Your task to perform on an android device: Search for "razer blade" on amazon, select the first entry, add it to the cart, then select checkout. Image 0: 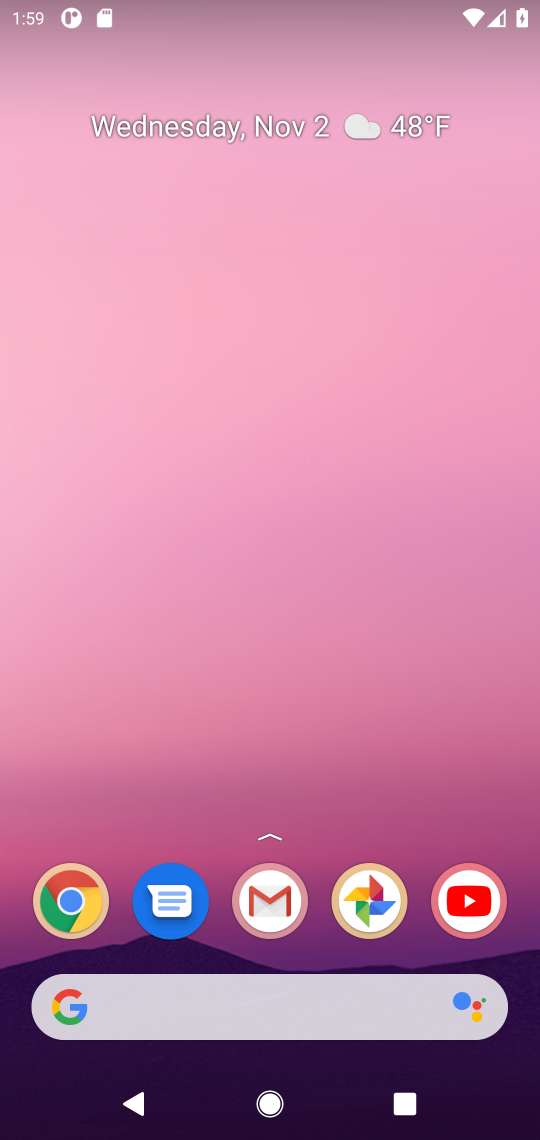
Step 0: drag from (308, 963) to (302, 267)
Your task to perform on an android device: Search for "razer blade" on amazon, select the first entry, add it to the cart, then select checkout. Image 1: 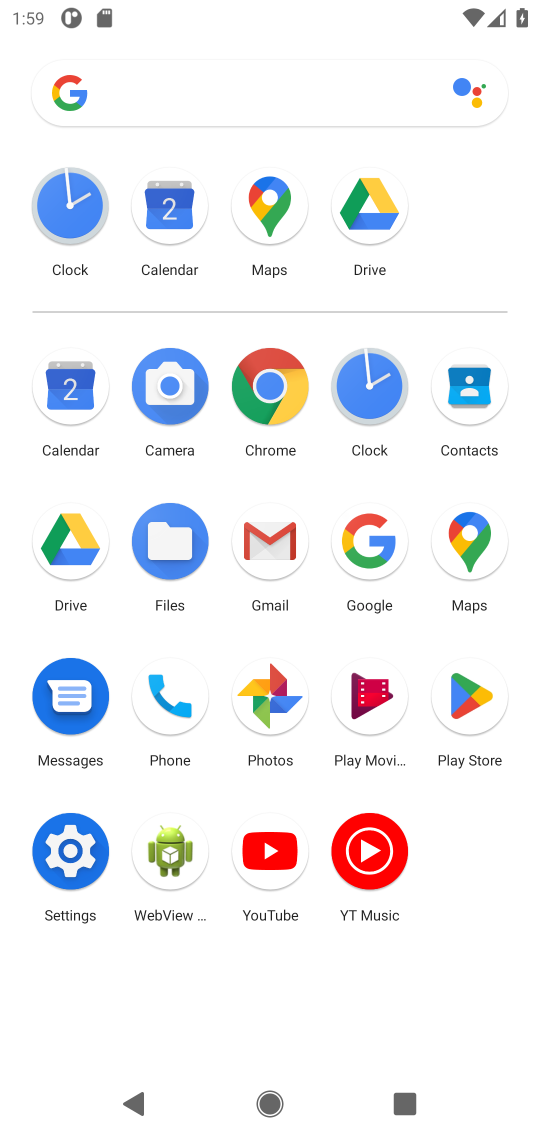
Step 1: click (275, 387)
Your task to perform on an android device: Search for "razer blade" on amazon, select the first entry, add it to the cart, then select checkout. Image 2: 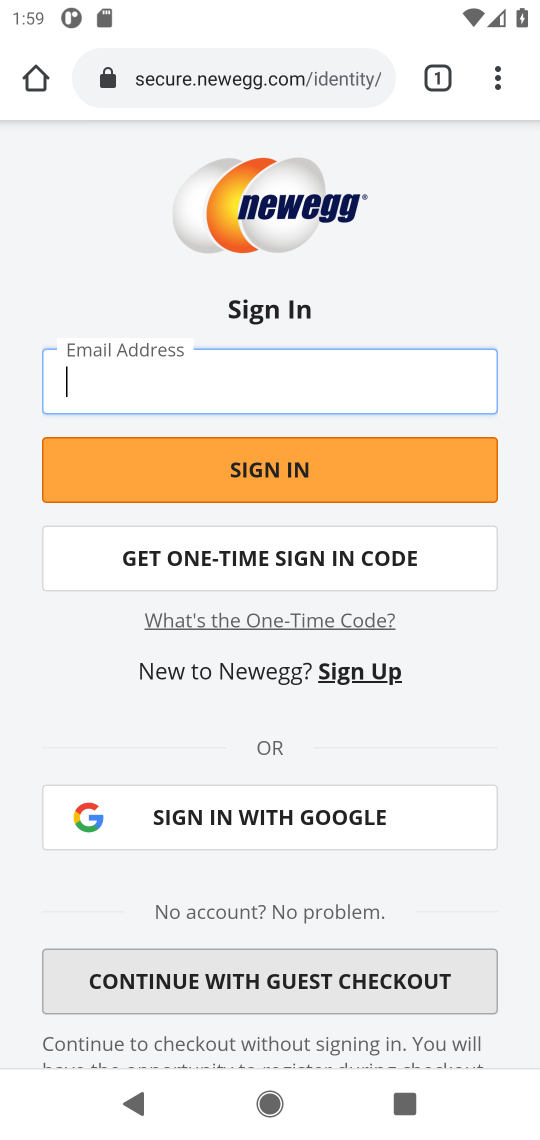
Step 2: click (332, 76)
Your task to perform on an android device: Search for "razer blade" on amazon, select the first entry, add it to the cart, then select checkout. Image 3: 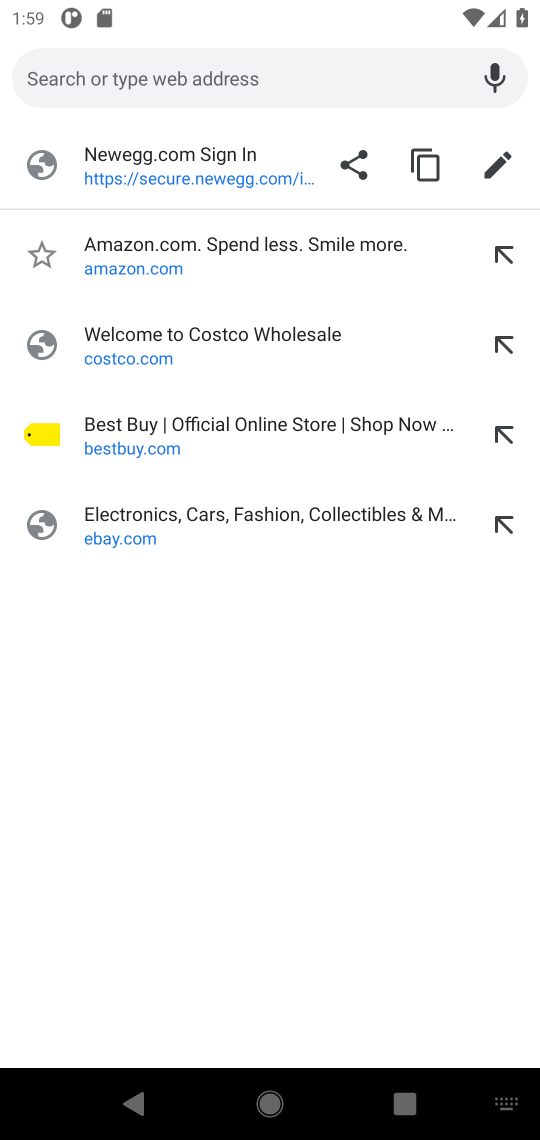
Step 3: type "amazon.com"
Your task to perform on an android device: Search for "razer blade" on amazon, select the first entry, add it to the cart, then select checkout. Image 4: 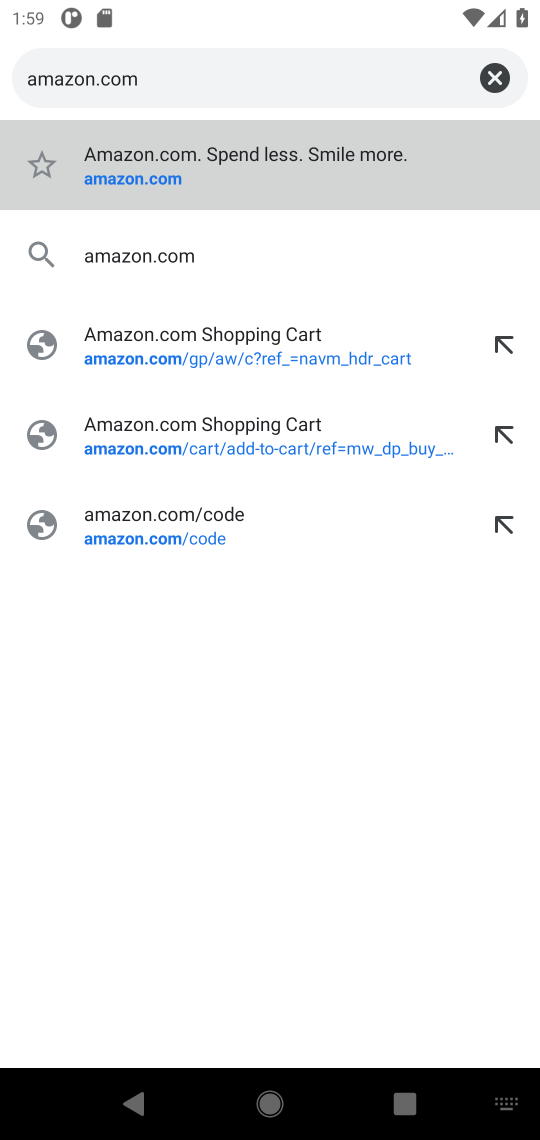
Step 4: press enter
Your task to perform on an android device: Search for "razer blade" on amazon, select the first entry, add it to the cart, then select checkout. Image 5: 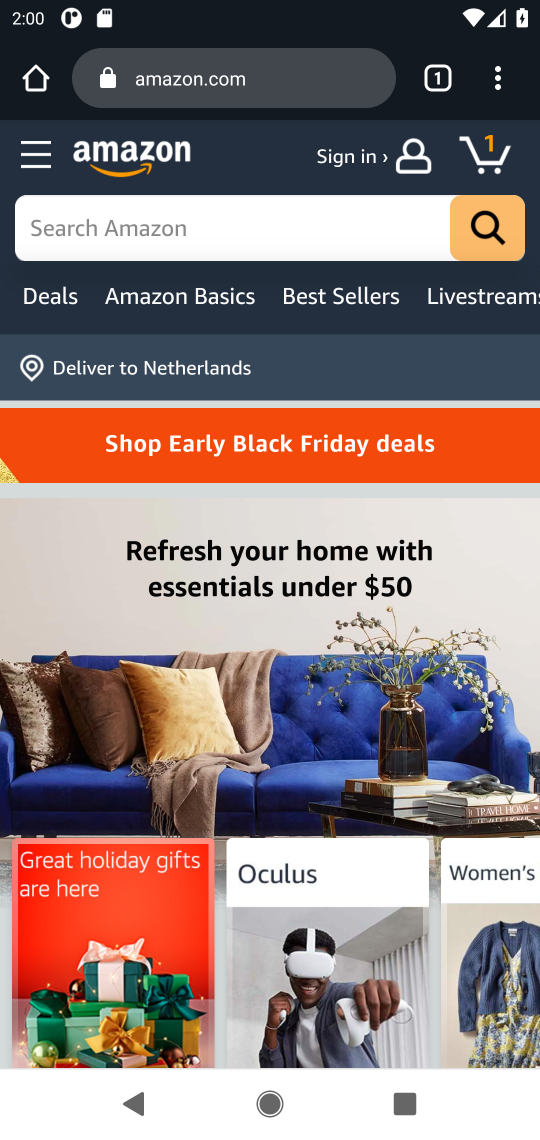
Step 5: click (316, 239)
Your task to perform on an android device: Search for "razer blade" on amazon, select the first entry, add it to the cart, then select checkout. Image 6: 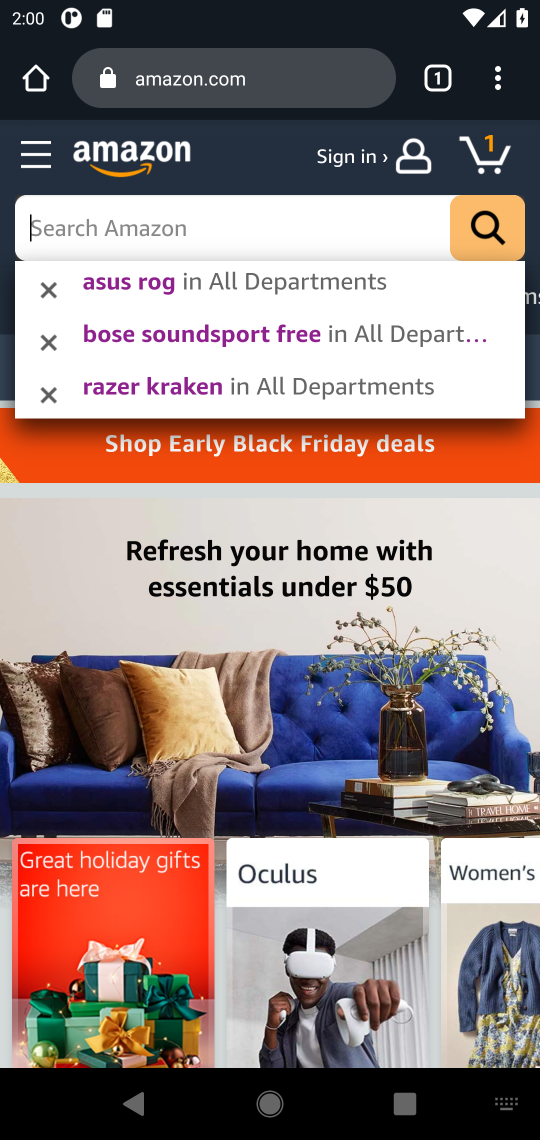
Step 6: type "razer blade"
Your task to perform on an android device: Search for "razer blade" on amazon, select the first entry, add it to the cart, then select checkout. Image 7: 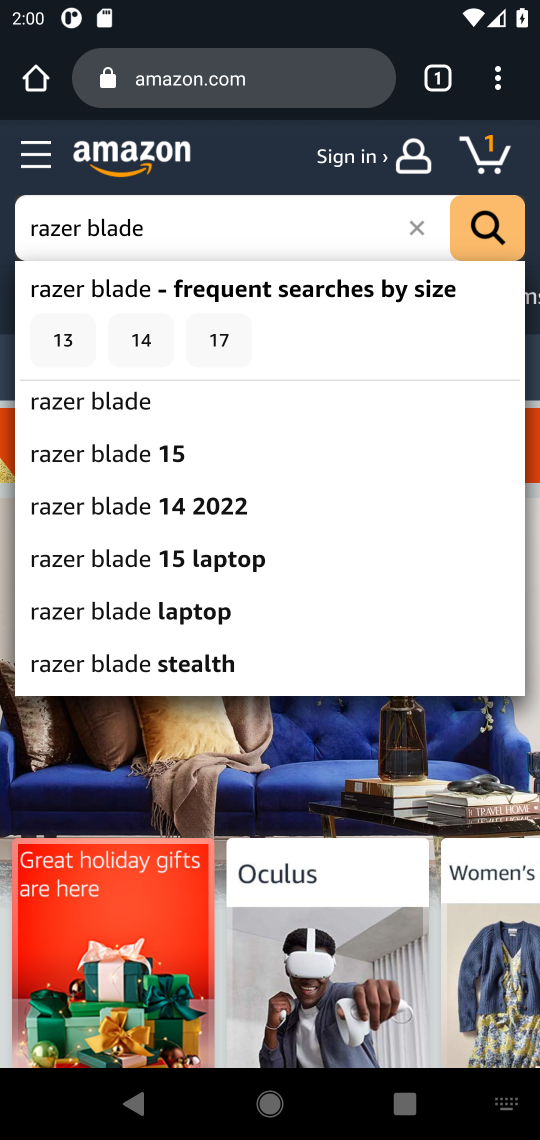
Step 7: press enter
Your task to perform on an android device: Search for "razer blade" on amazon, select the first entry, add it to the cart, then select checkout. Image 8: 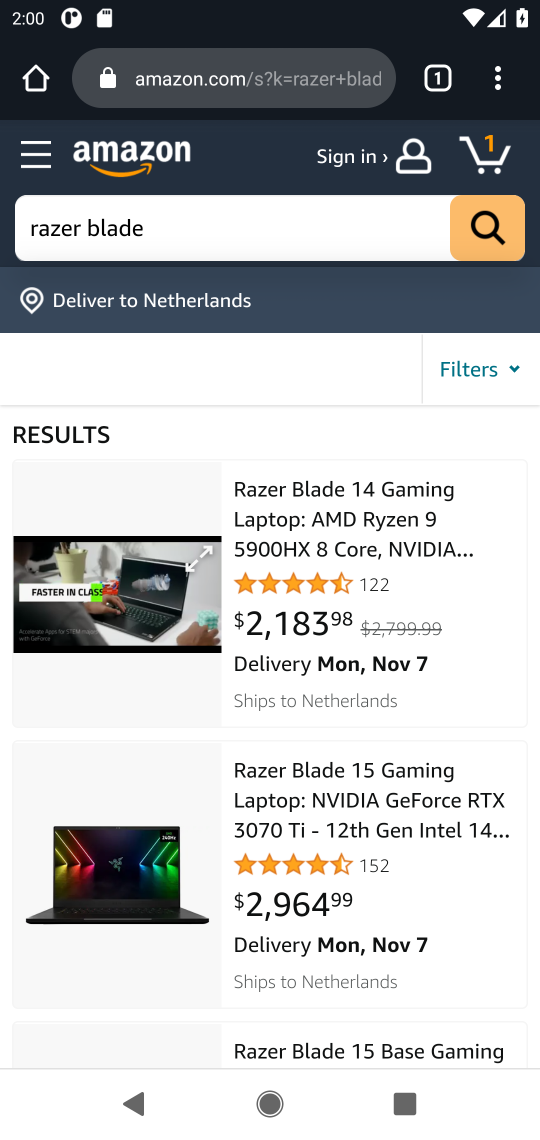
Step 8: click (157, 564)
Your task to perform on an android device: Search for "razer blade" on amazon, select the first entry, add it to the cart, then select checkout. Image 9: 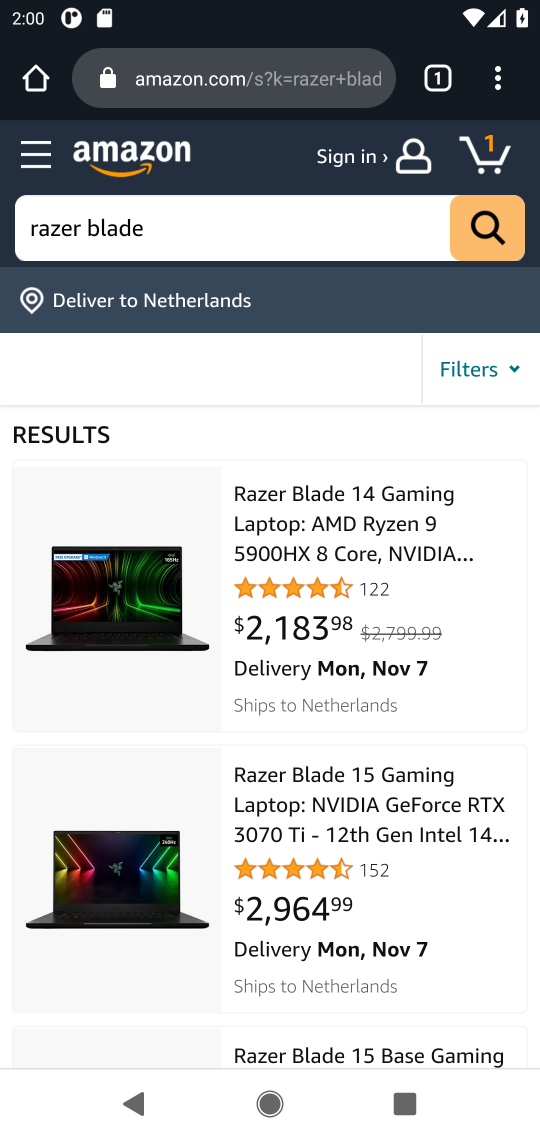
Step 9: click (336, 538)
Your task to perform on an android device: Search for "razer blade" on amazon, select the first entry, add it to the cart, then select checkout. Image 10: 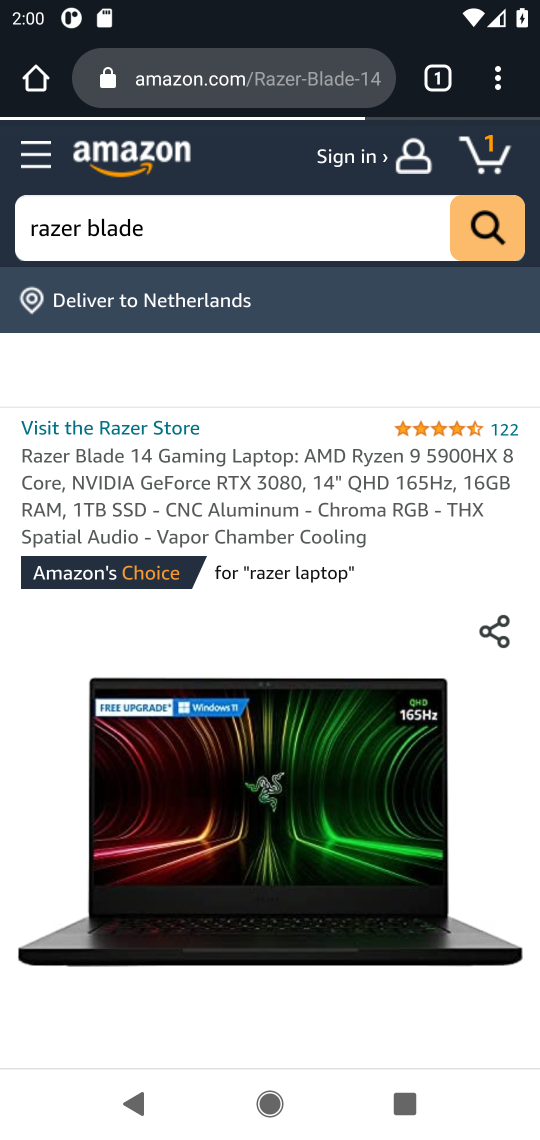
Step 10: drag from (338, 892) to (391, 197)
Your task to perform on an android device: Search for "razer blade" on amazon, select the first entry, add it to the cart, then select checkout. Image 11: 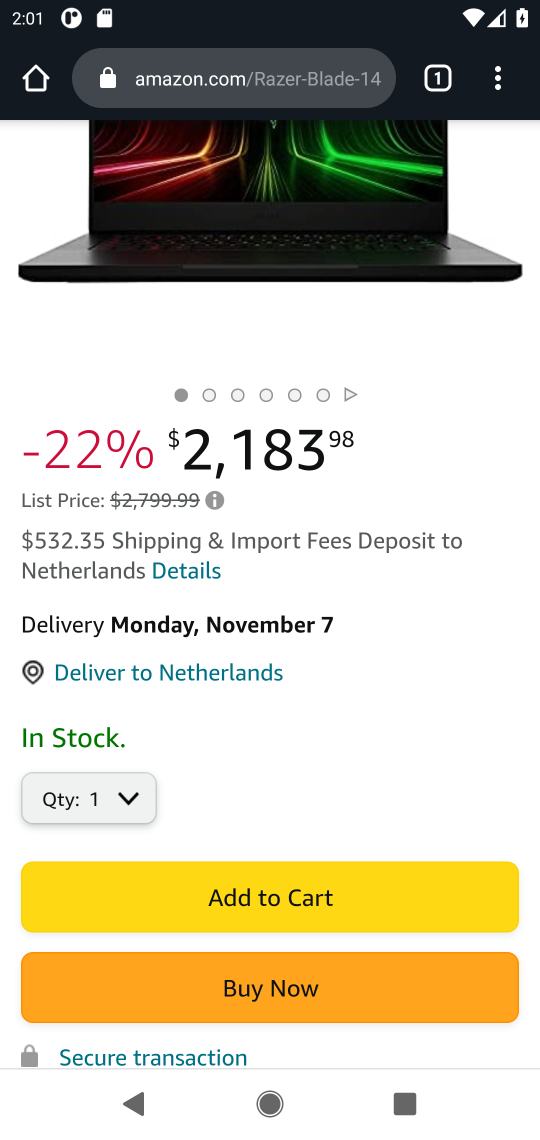
Step 11: click (418, 894)
Your task to perform on an android device: Search for "razer blade" on amazon, select the first entry, add it to the cart, then select checkout. Image 12: 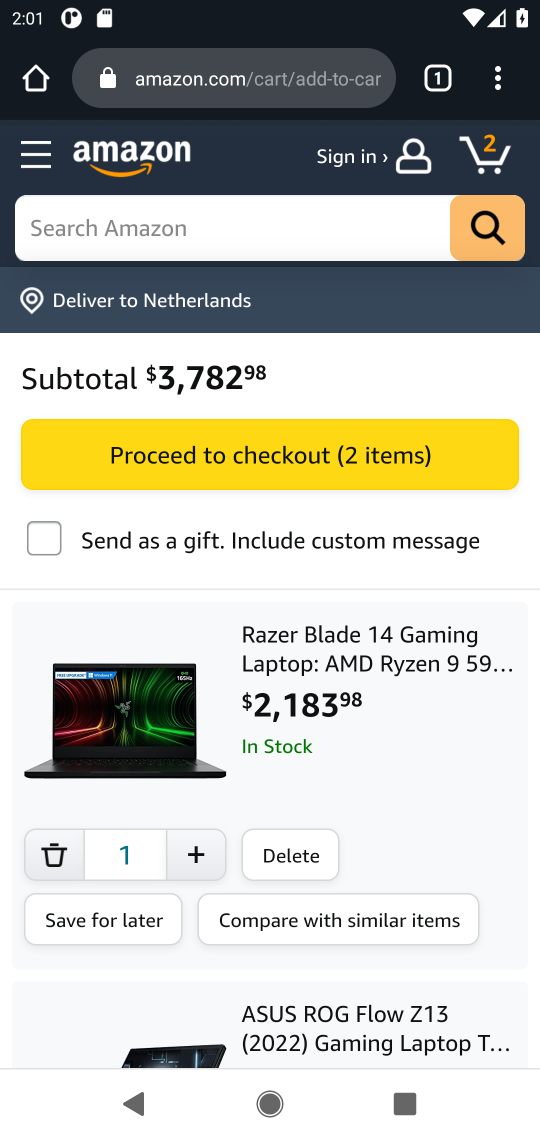
Step 12: drag from (315, 849) to (348, 628)
Your task to perform on an android device: Search for "razer blade" on amazon, select the first entry, add it to the cart, then select checkout. Image 13: 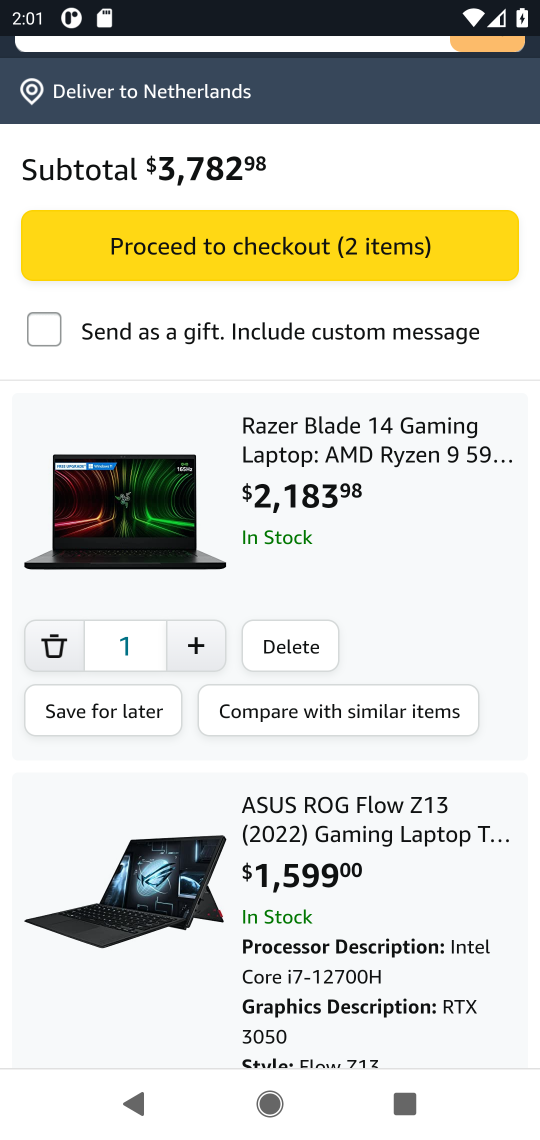
Step 13: click (377, 230)
Your task to perform on an android device: Search for "razer blade" on amazon, select the first entry, add it to the cart, then select checkout. Image 14: 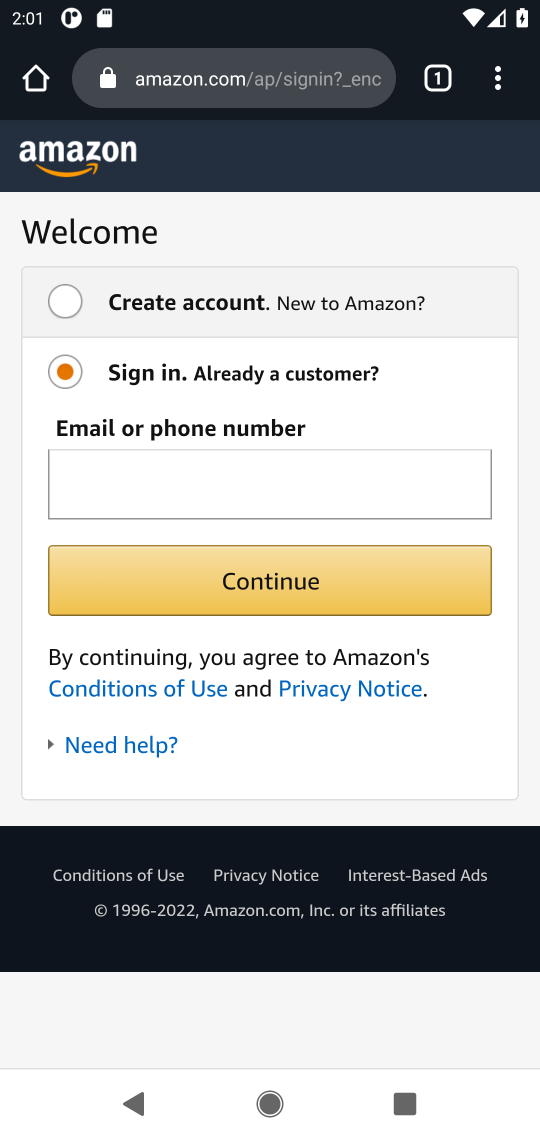
Step 14: task complete